Your task to perform on an android device: change timer sound Image 0: 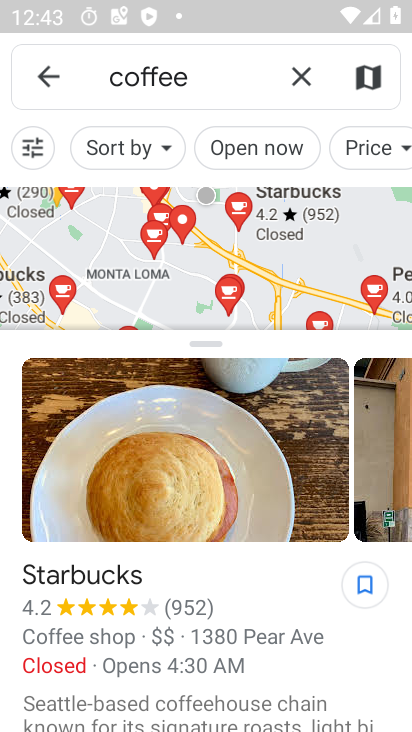
Step 0: press home button
Your task to perform on an android device: change timer sound Image 1: 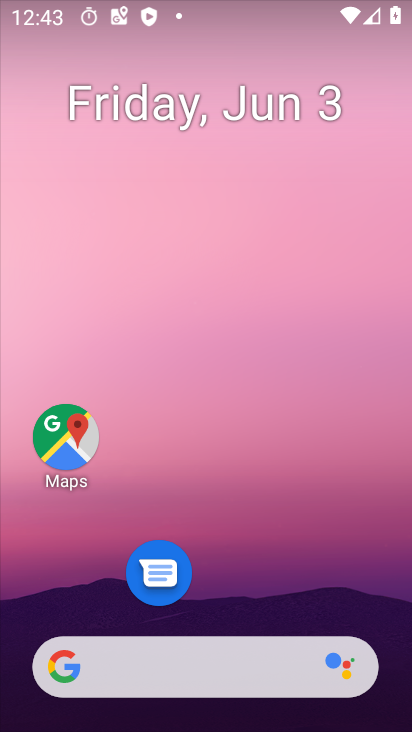
Step 1: drag from (262, 602) to (308, 95)
Your task to perform on an android device: change timer sound Image 2: 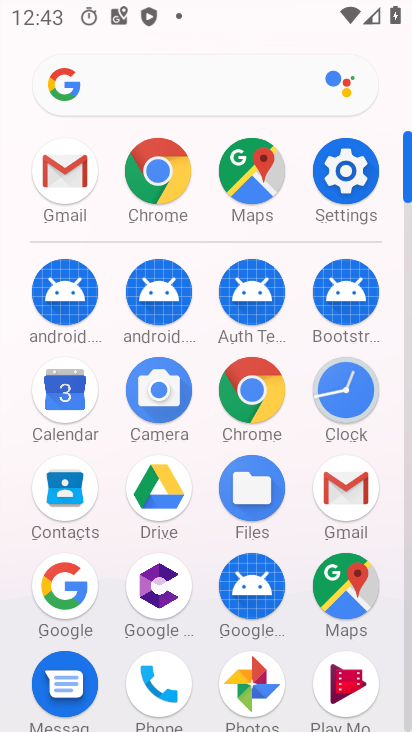
Step 2: click (354, 397)
Your task to perform on an android device: change timer sound Image 3: 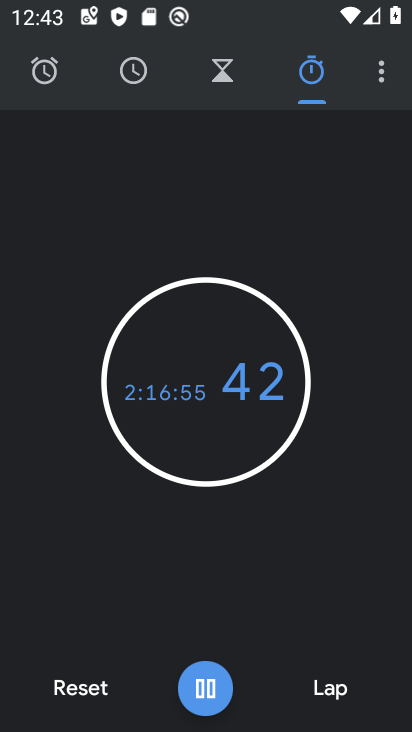
Step 3: click (385, 69)
Your task to perform on an android device: change timer sound Image 4: 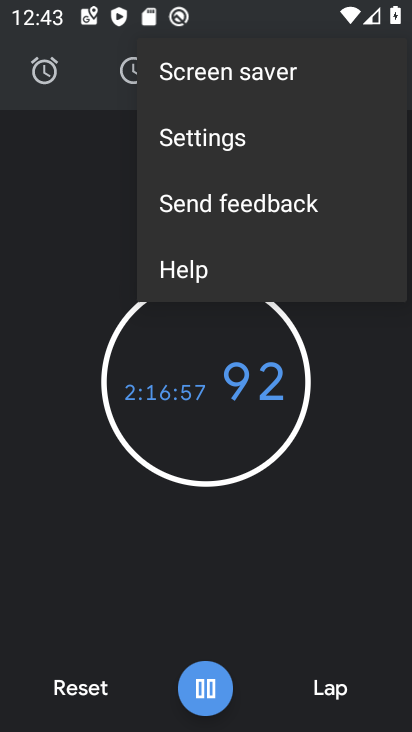
Step 4: click (216, 130)
Your task to perform on an android device: change timer sound Image 5: 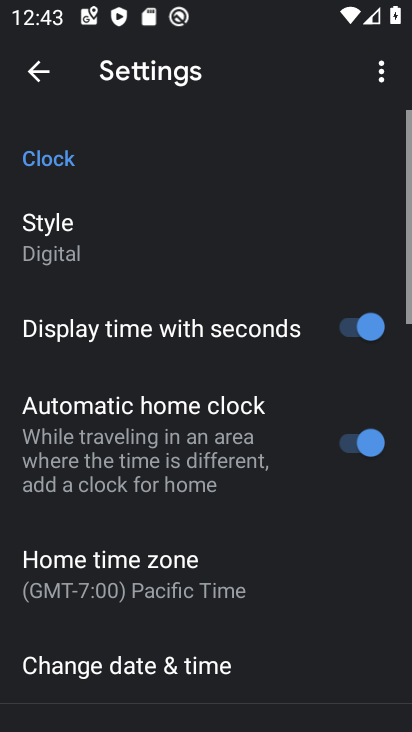
Step 5: drag from (147, 547) to (187, 51)
Your task to perform on an android device: change timer sound Image 6: 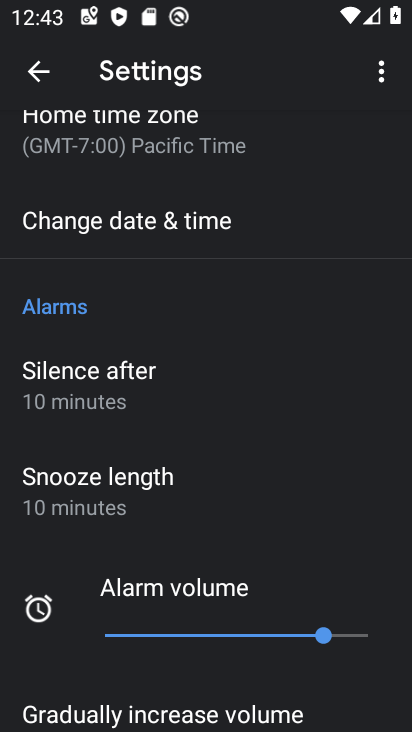
Step 6: drag from (187, 625) to (216, 190)
Your task to perform on an android device: change timer sound Image 7: 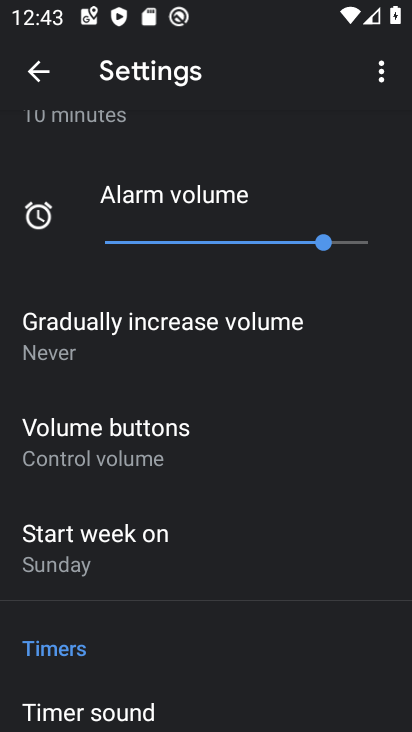
Step 7: drag from (165, 606) to (212, 325)
Your task to perform on an android device: change timer sound Image 8: 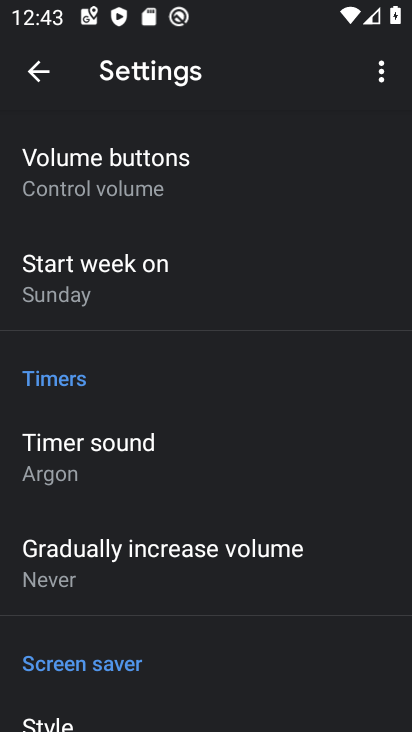
Step 8: click (153, 449)
Your task to perform on an android device: change timer sound Image 9: 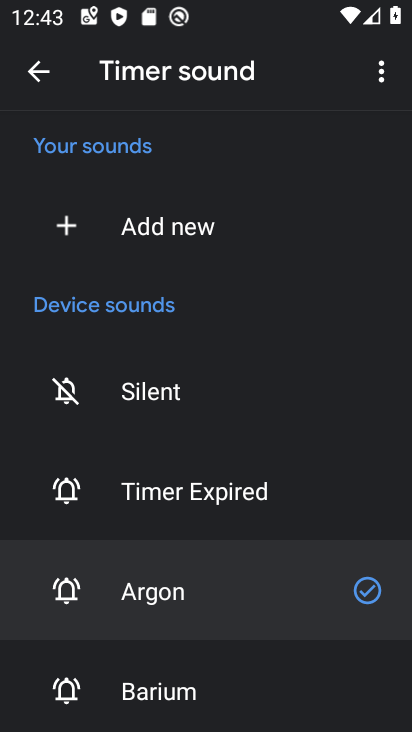
Step 9: click (140, 702)
Your task to perform on an android device: change timer sound Image 10: 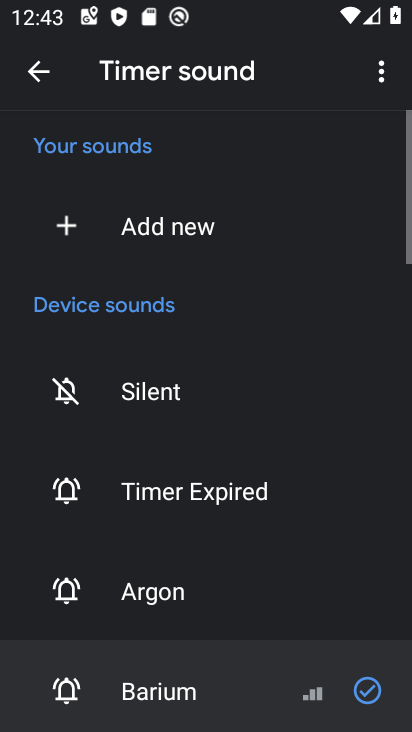
Step 10: task complete